Your task to perform on an android device: install app "Yahoo Mail" Image 0: 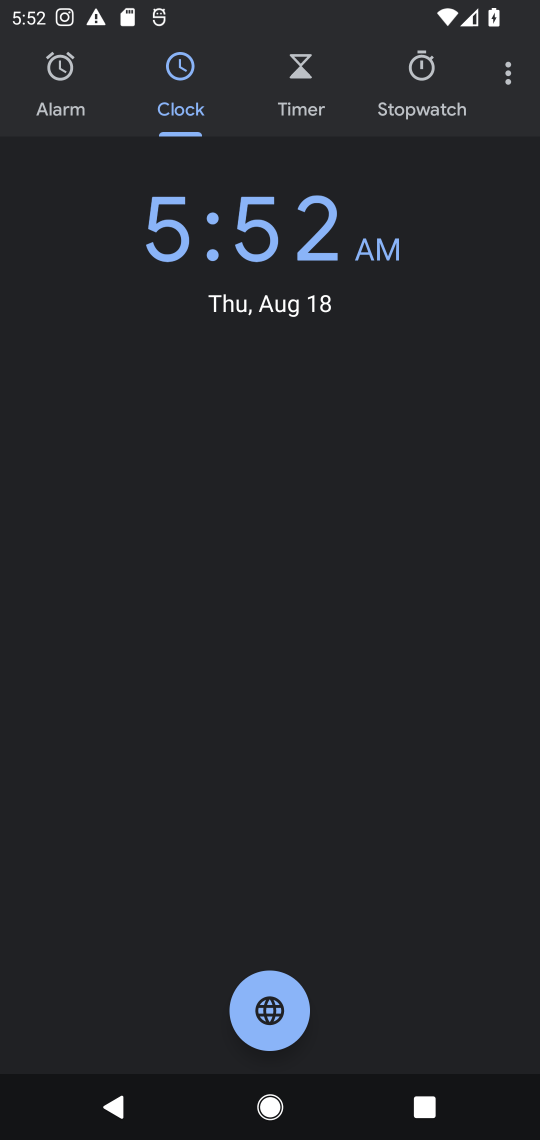
Step 0: press home button
Your task to perform on an android device: install app "Yahoo Mail" Image 1: 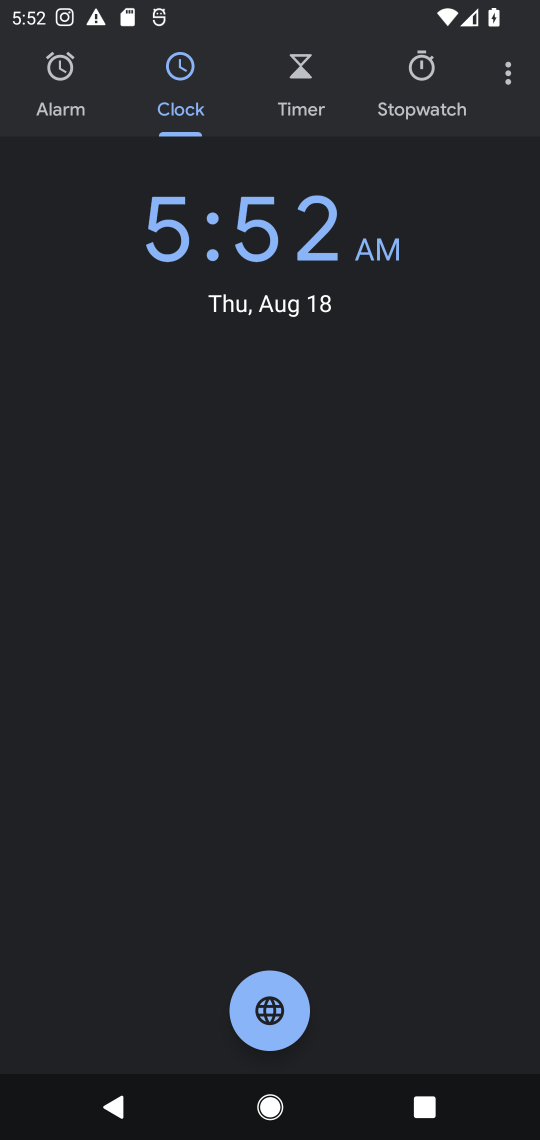
Step 1: press home button
Your task to perform on an android device: install app "Yahoo Mail" Image 2: 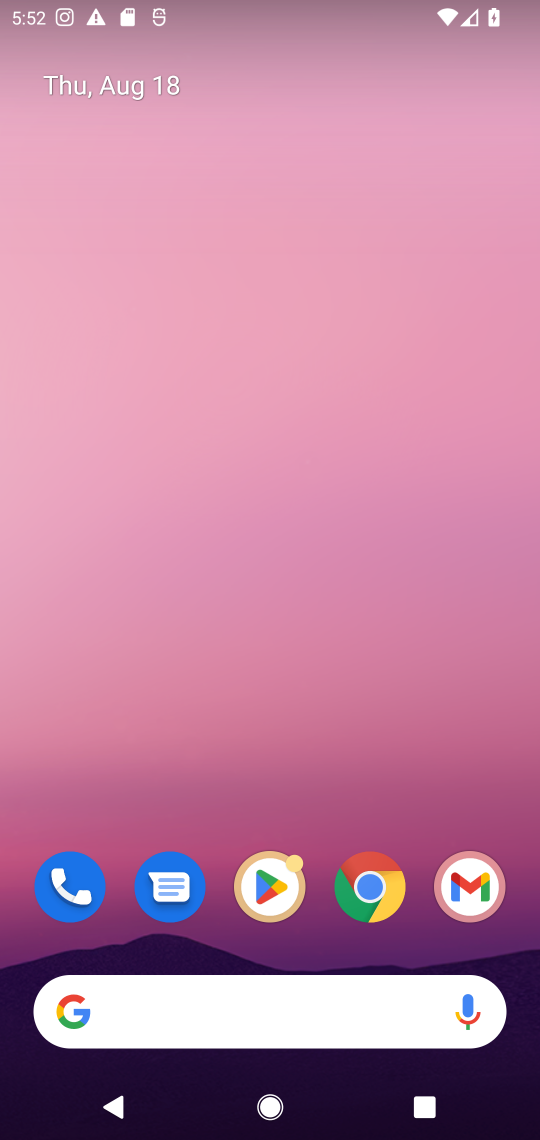
Step 2: click (259, 883)
Your task to perform on an android device: install app "Yahoo Mail" Image 3: 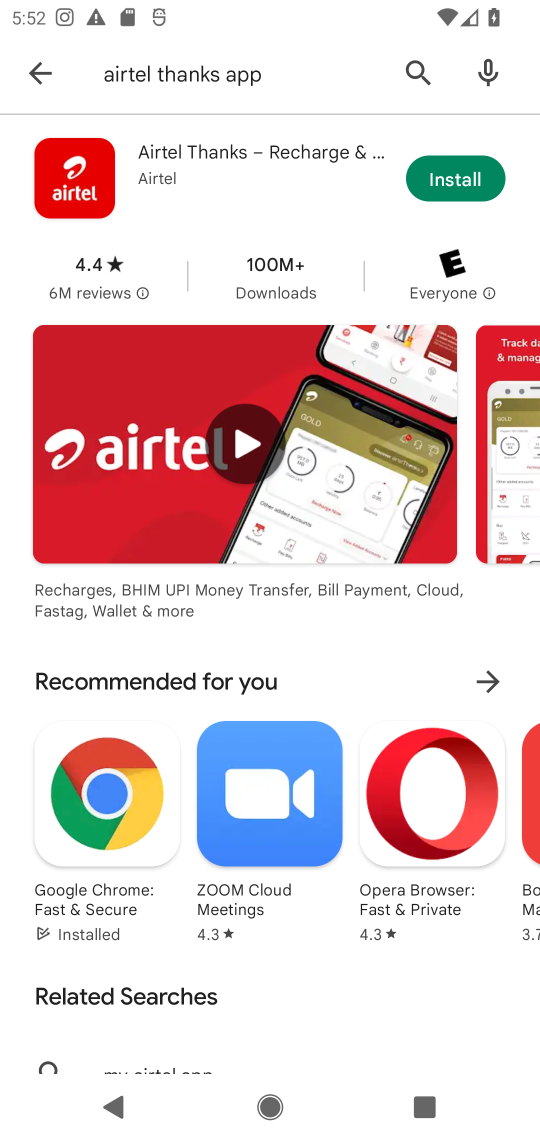
Step 3: click (410, 76)
Your task to perform on an android device: install app "Yahoo Mail" Image 4: 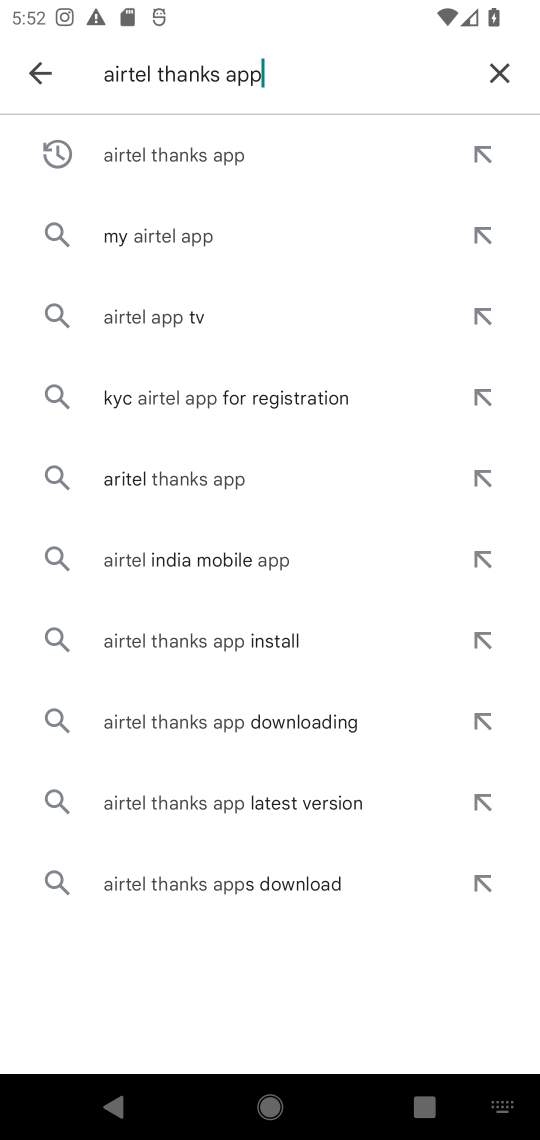
Step 4: click (496, 65)
Your task to perform on an android device: install app "Yahoo Mail" Image 5: 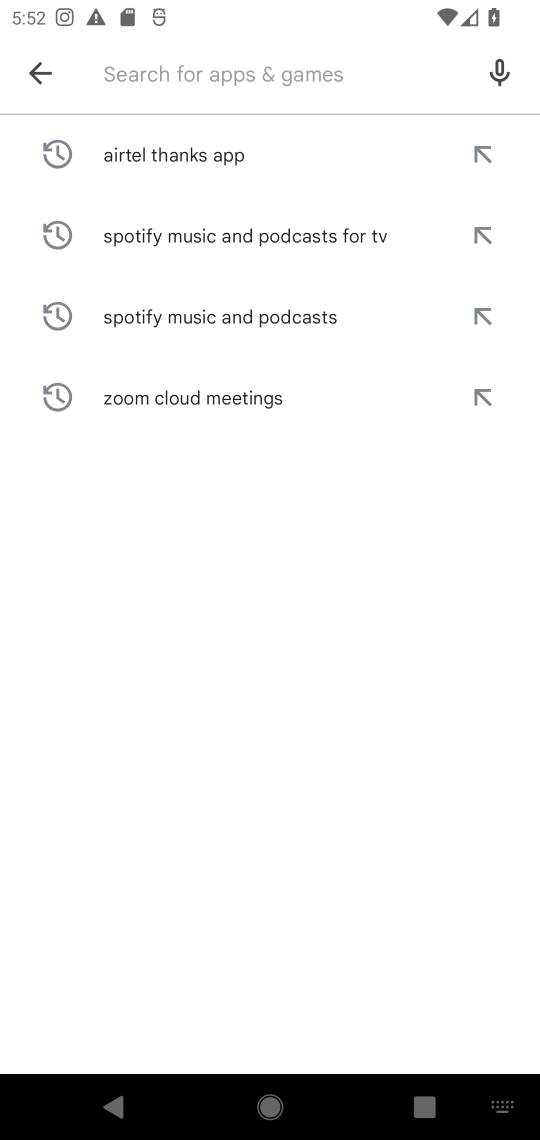
Step 5: type "Yahoo Mail"
Your task to perform on an android device: install app "Yahoo Mail" Image 6: 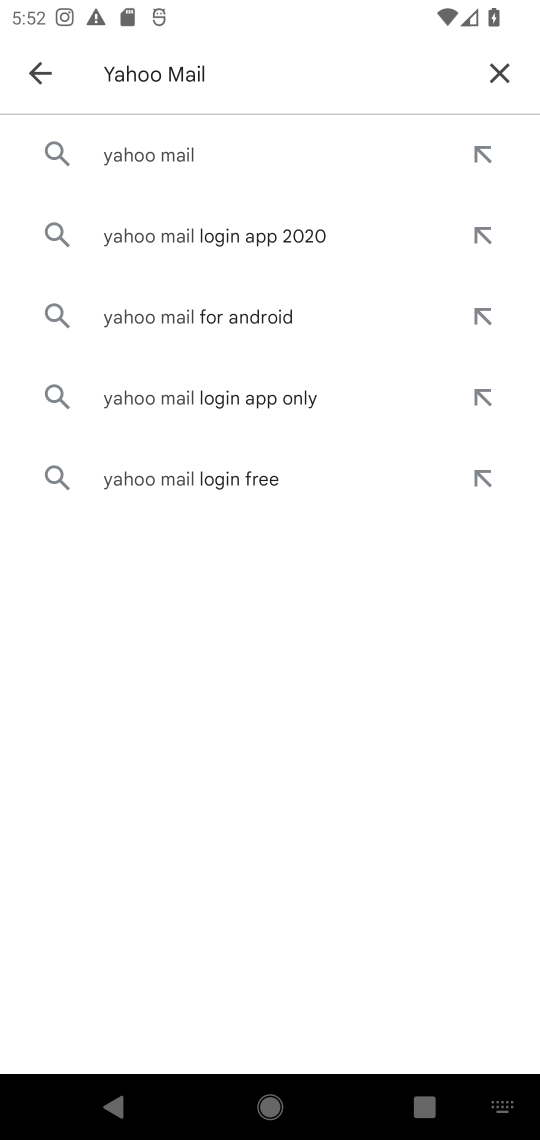
Step 6: click (172, 151)
Your task to perform on an android device: install app "Yahoo Mail" Image 7: 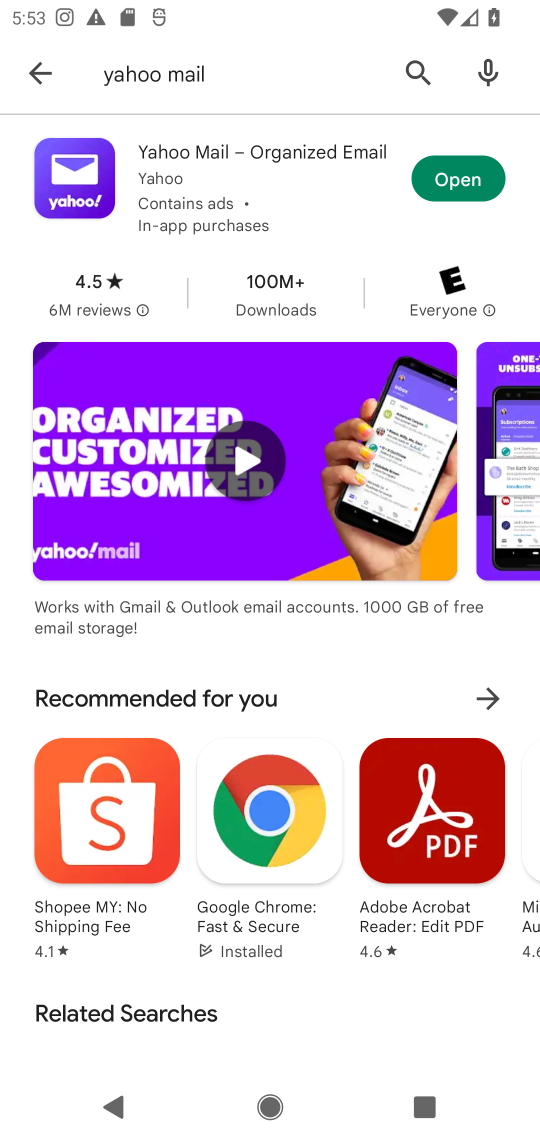
Step 7: click (169, 153)
Your task to perform on an android device: install app "Yahoo Mail" Image 8: 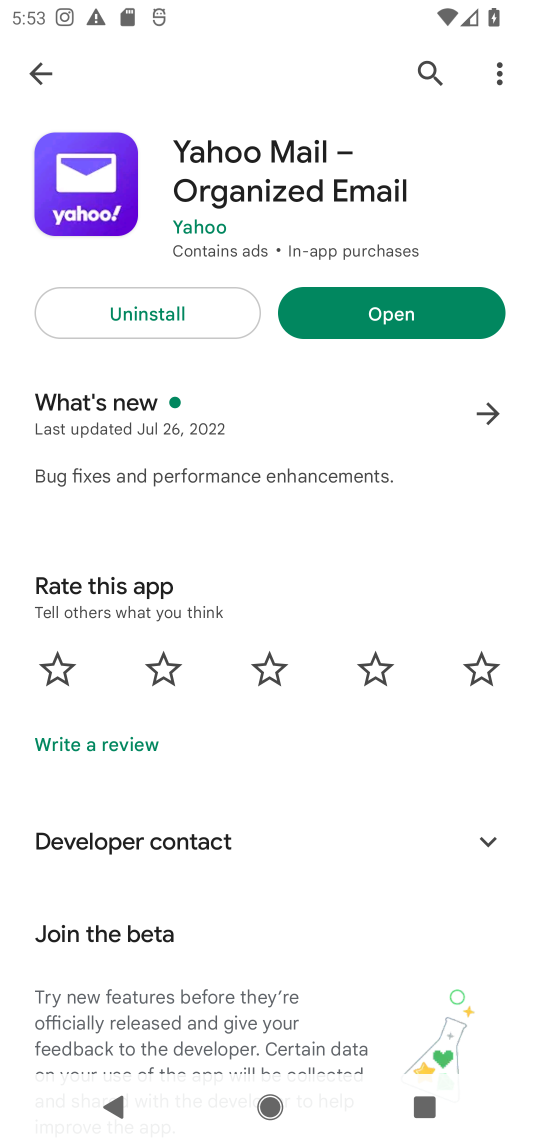
Step 8: task complete